Your task to perform on an android device: Go to eBay Image 0: 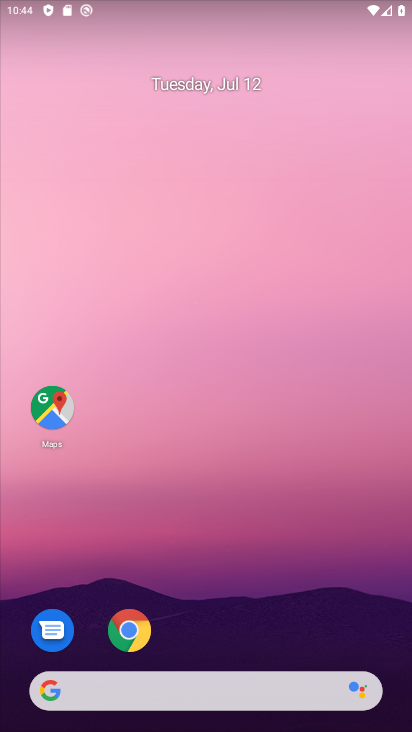
Step 0: drag from (361, 660) to (160, 46)
Your task to perform on an android device: Go to eBay Image 1: 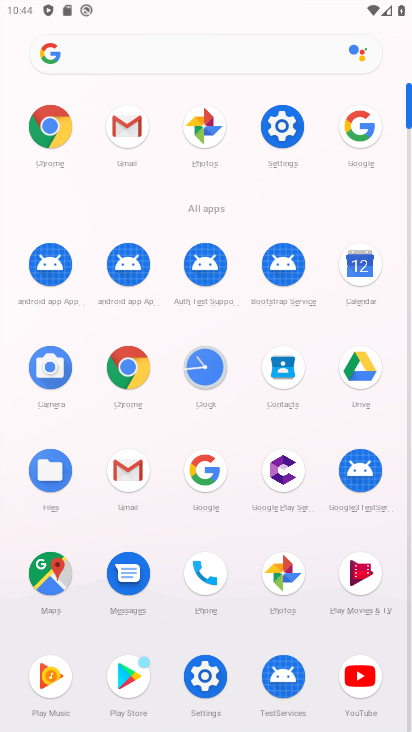
Step 1: click (210, 474)
Your task to perform on an android device: Go to eBay Image 2: 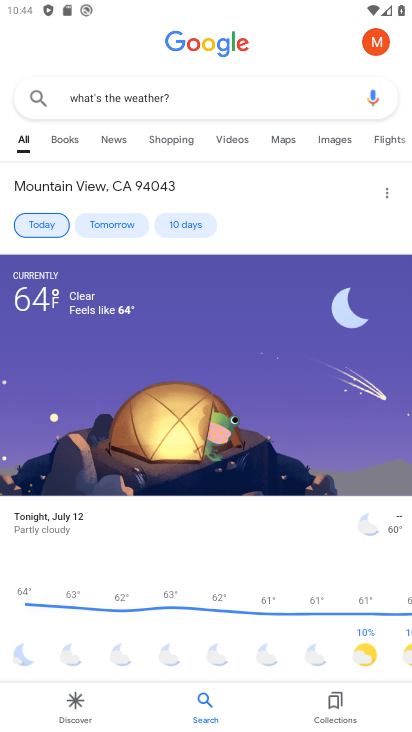
Step 2: press back button
Your task to perform on an android device: Go to eBay Image 3: 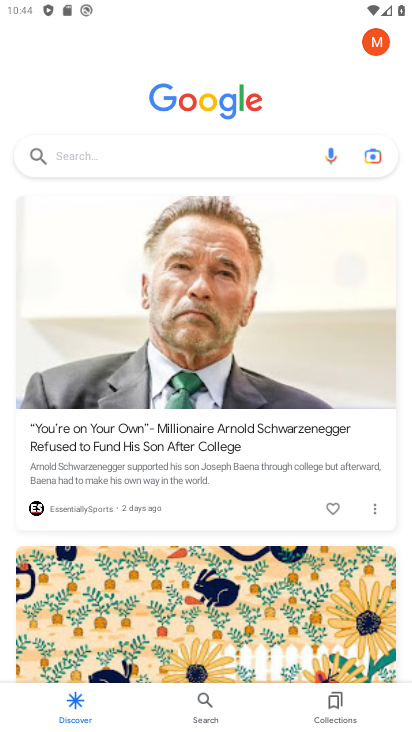
Step 3: click (161, 165)
Your task to perform on an android device: Go to eBay Image 4: 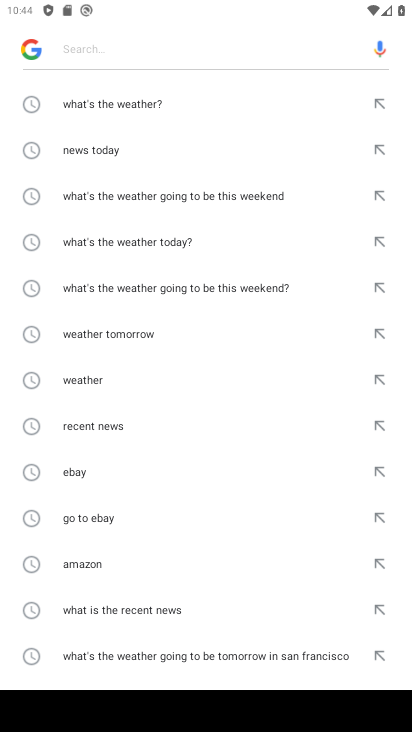
Step 4: click (91, 469)
Your task to perform on an android device: Go to eBay Image 5: 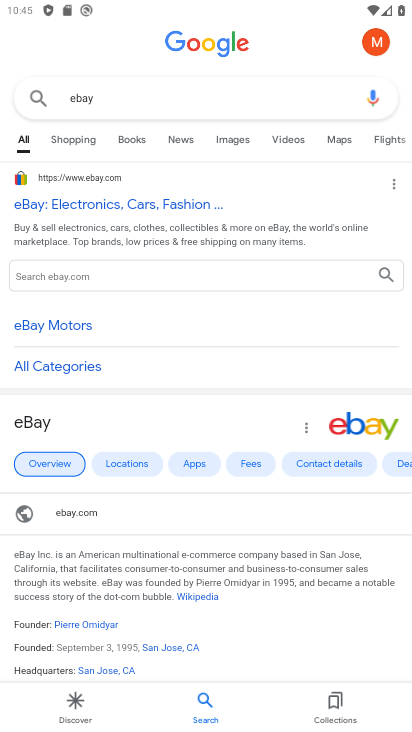
Step 5: task complete